Your task to perform on an android device: empty trash in the gmail app Image 0: 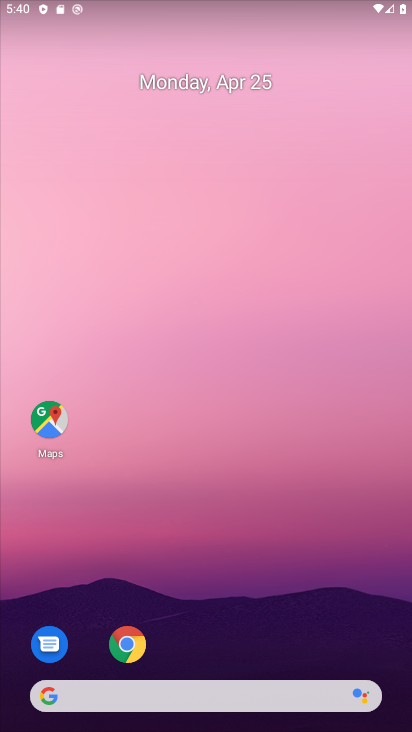
Step 0: drag from (274, 564) to (252, 6)
Your task to perform on an android device: empty trash in the gmail app Image 1: 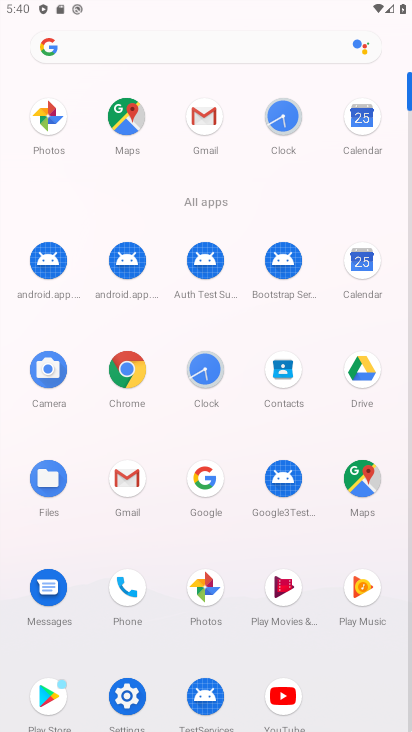
Step 1: click (135, 479)
Your task to perform on an android device: empty trash in the gmail app Image 2: 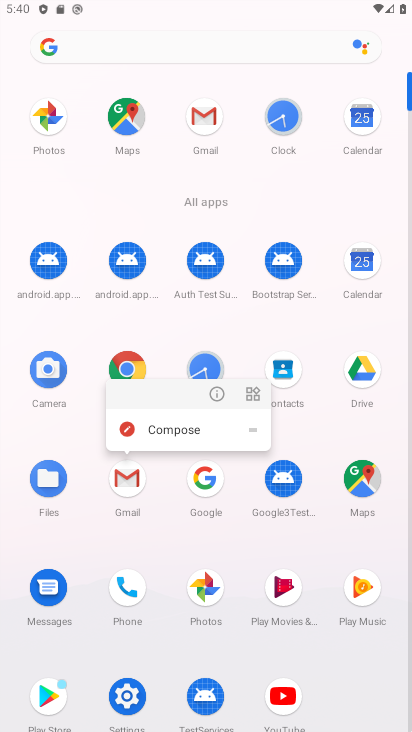
Step 2: click (117, 483)
Your task to perform on an android device: empty trash in the gmail app Image 3: 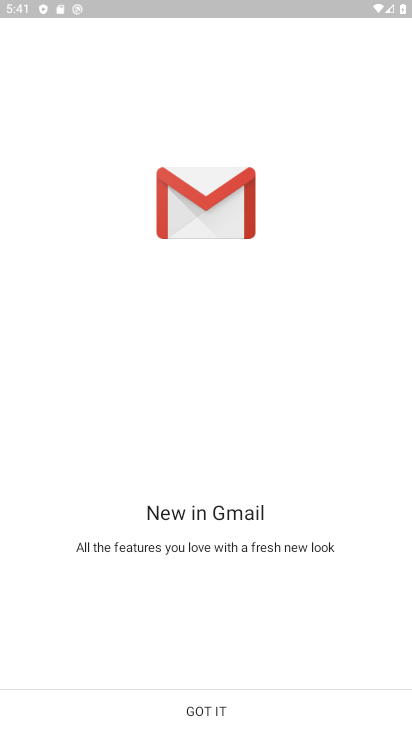
Step 3: click (221, 703)
Your task to perform on an android device: empty trash in the gmail app Image 4: 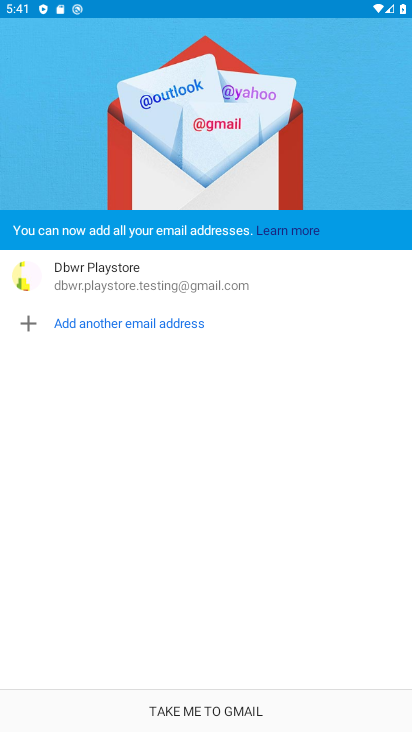
Step 4: click (225, 711)
Your task to perform on an android device: empty trash in the gmail app Image 5: 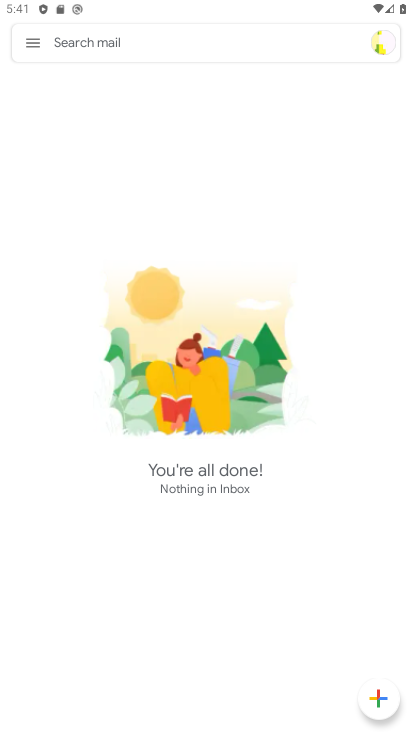
Step 5: click (31, 48)
Your task to perform on an android device: empty trash in the gmail app Image 6: 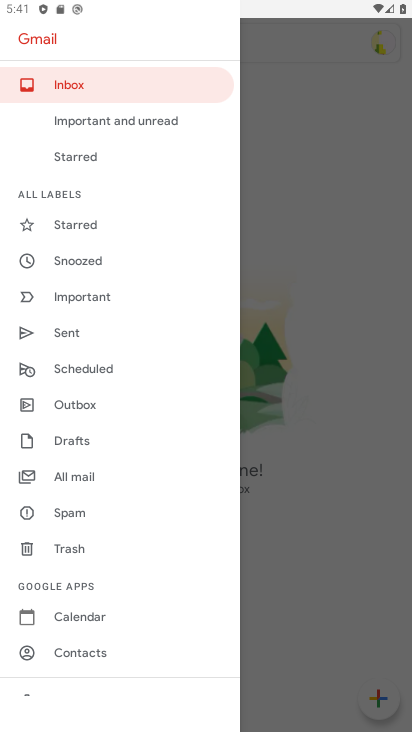
Step 6: click (54, 542)
Your task to perform on an android device: empty trash in the gmail app Image 7: 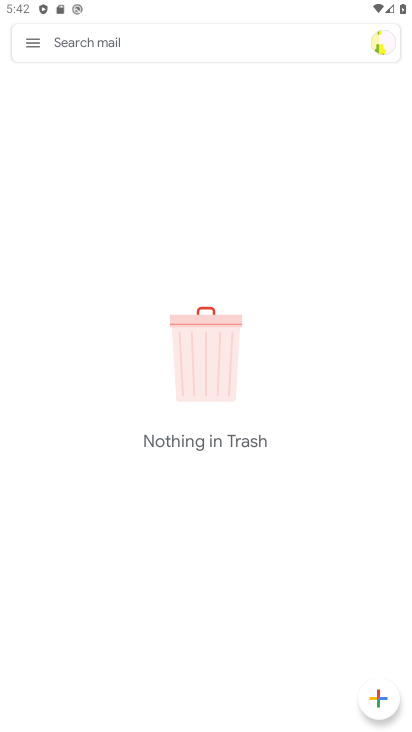
Step 7: task complete